Your task to perform on an android device: check out phone information Image 0: 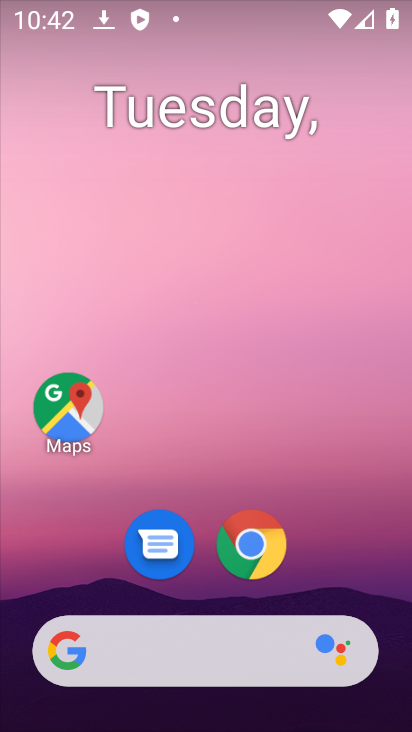
Step 0: drag from (393, 585) to (323, 41)
Your task to perform on an android device: check out phone information Image 1: 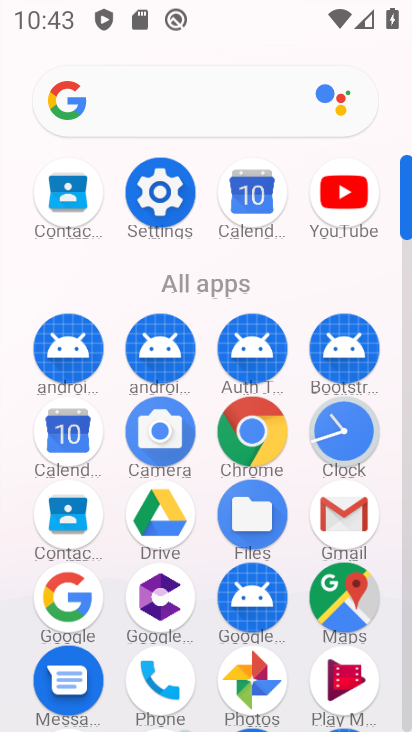
Step 1: click (166, 209)
Your task to perform on an android device: check out phone information Image 2: 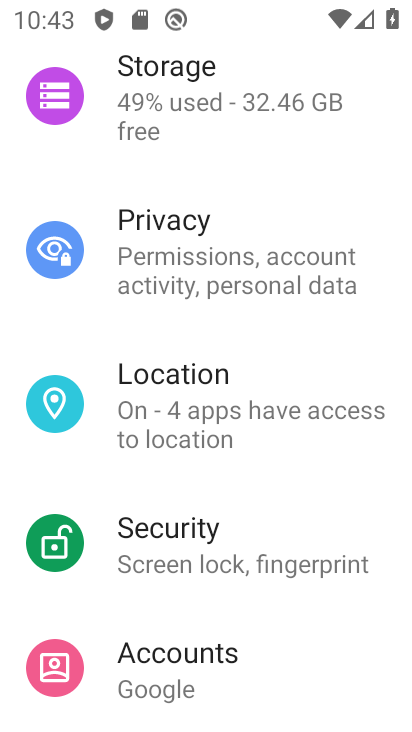
Step 2: drag from (196, 644) to (262, 95)
Your task to perform on an android device: check out phone information Image 3: 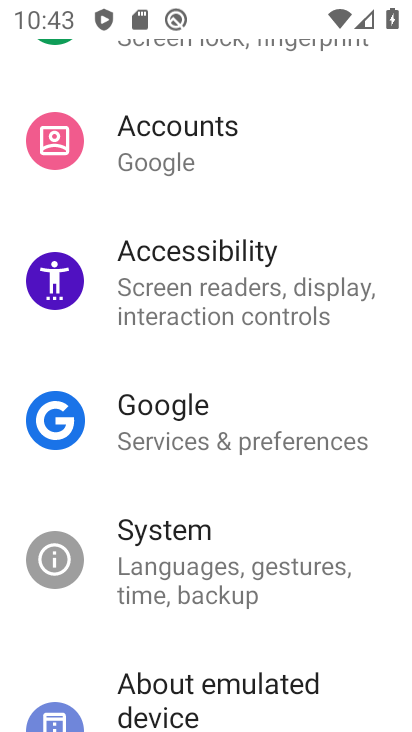
Step 3: drag from (229, 603) to (214, 85)
Your task to perform on an android device: check out phone information Image 4: 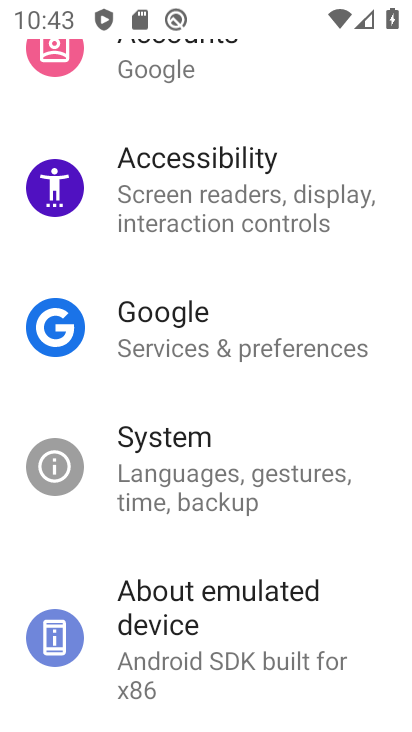
Step 4: click (189, 607)
Your task to perform on an android device: check out phone information Image 5: 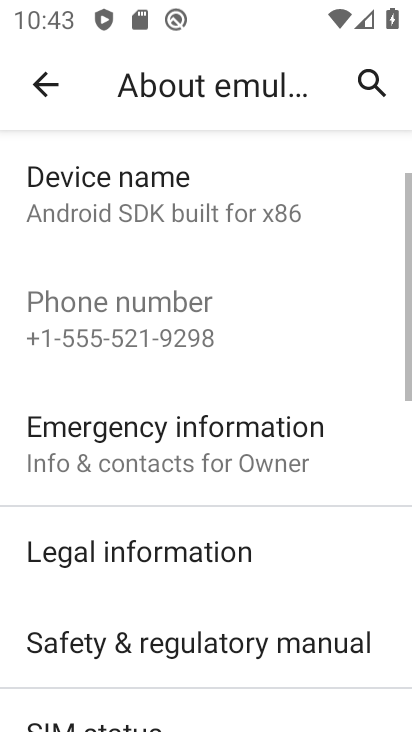
Step 5: task complete